Your task to perform on an android device: Open network settings Image 0: 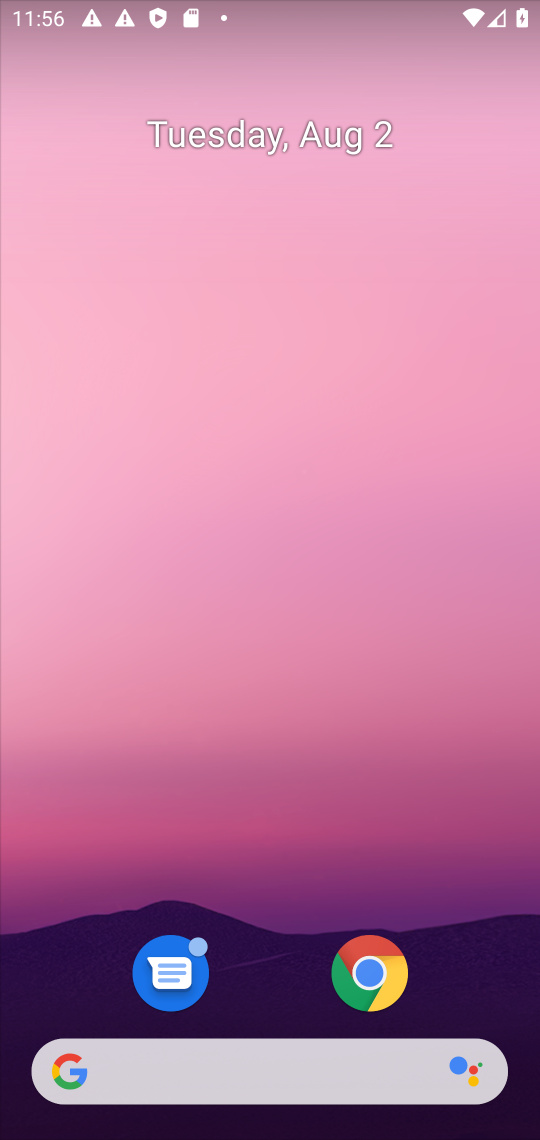
Step 0: drag from (344, 1046) to (313, 141)
Your task to perform on an android device: Open network settings Image 1: 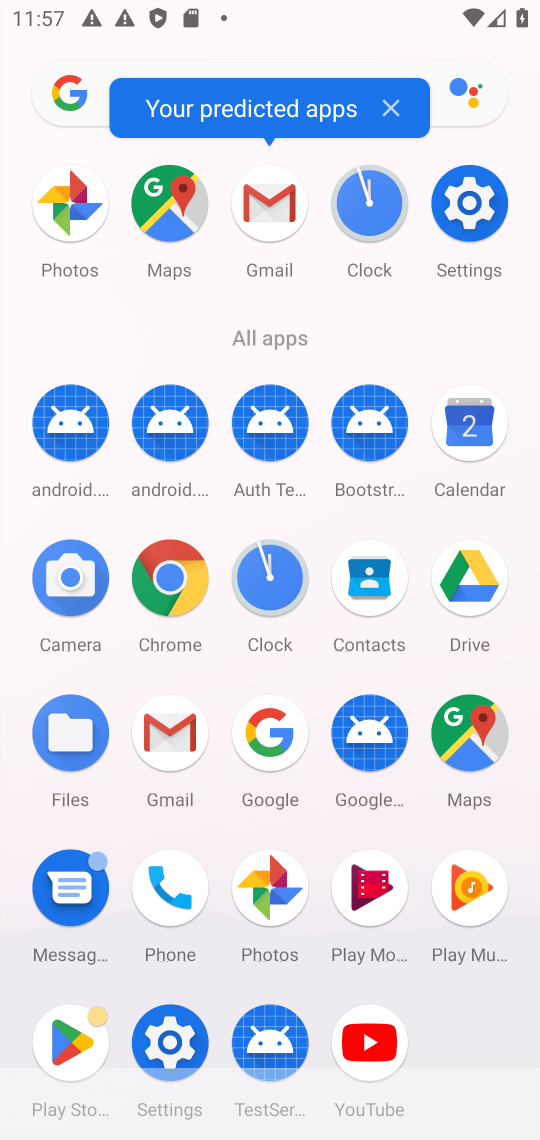
Step 1: click (454, 217)
Your task to perform on an android device: Open network settings Image 2: 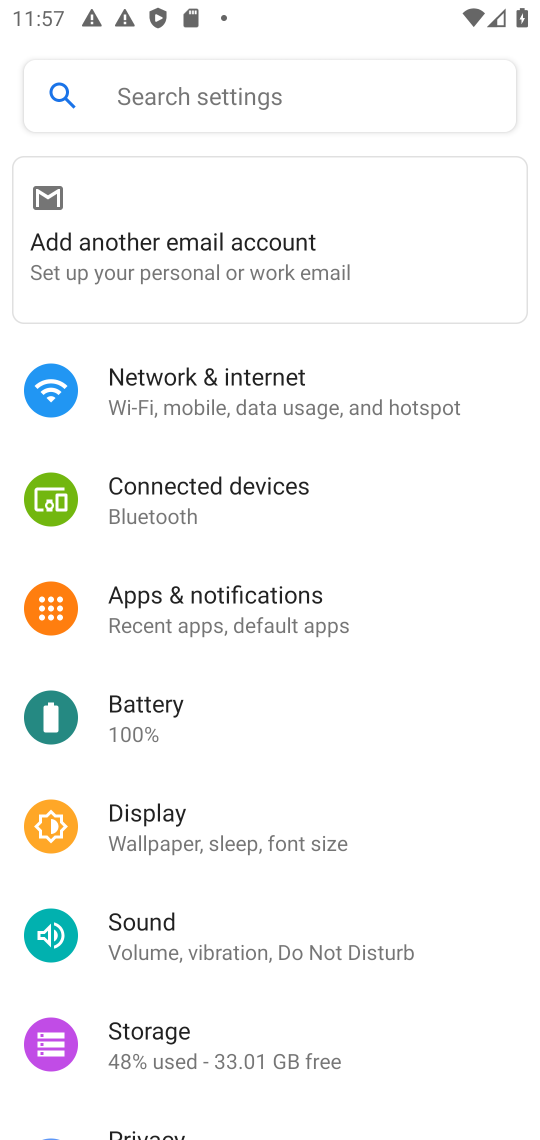
Step 2: click (222, 387)
Your task to perform on an android device: Open network settings Image 3: 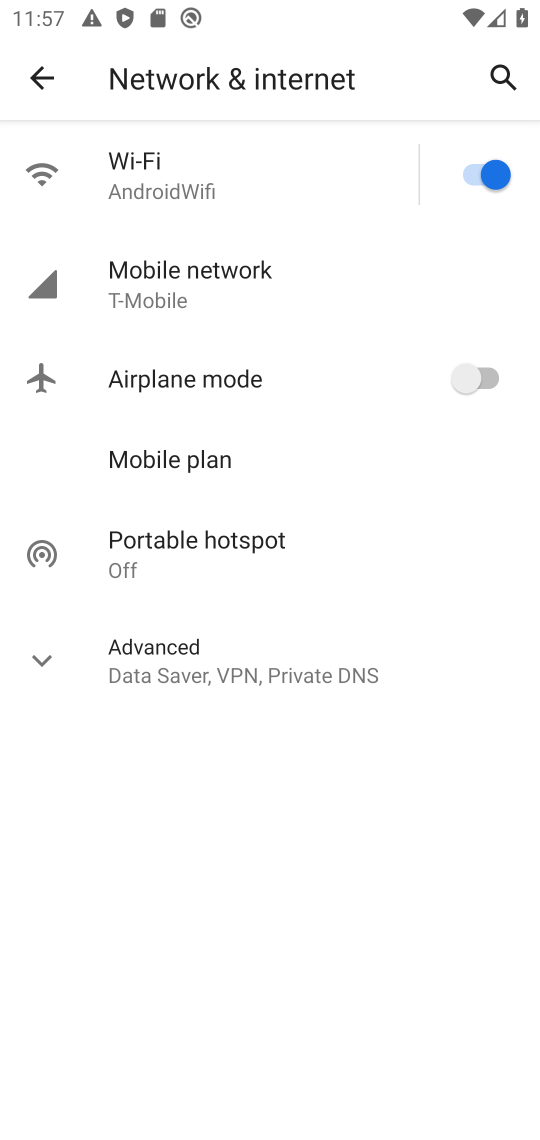
Step 3: task complete